Your task to perform on an android device: turn off location Image 0: 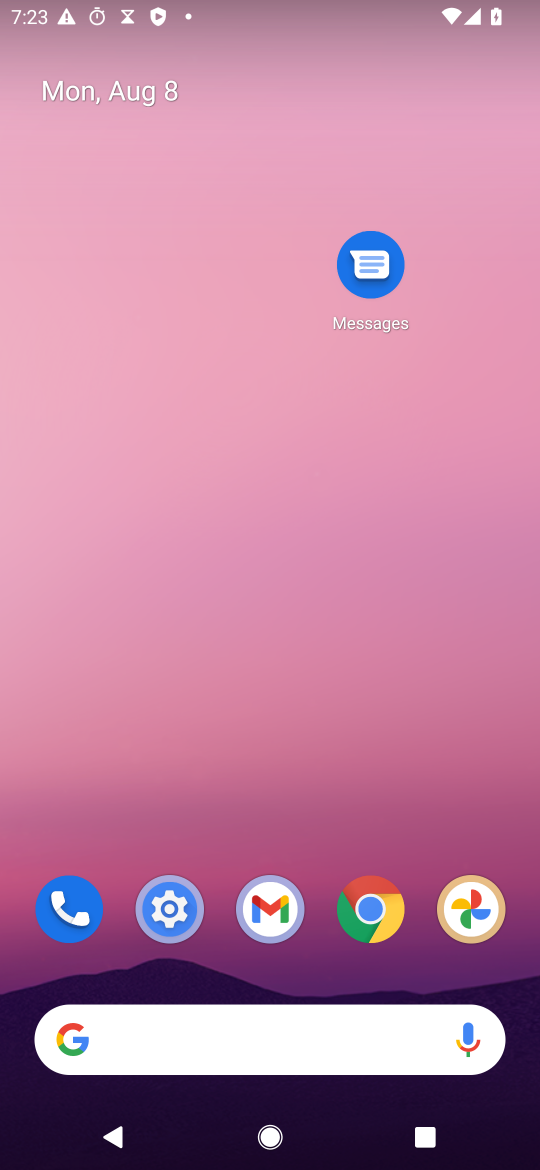
Step 0: press home button
Your task to perform on an android device: turn off location Image 1: 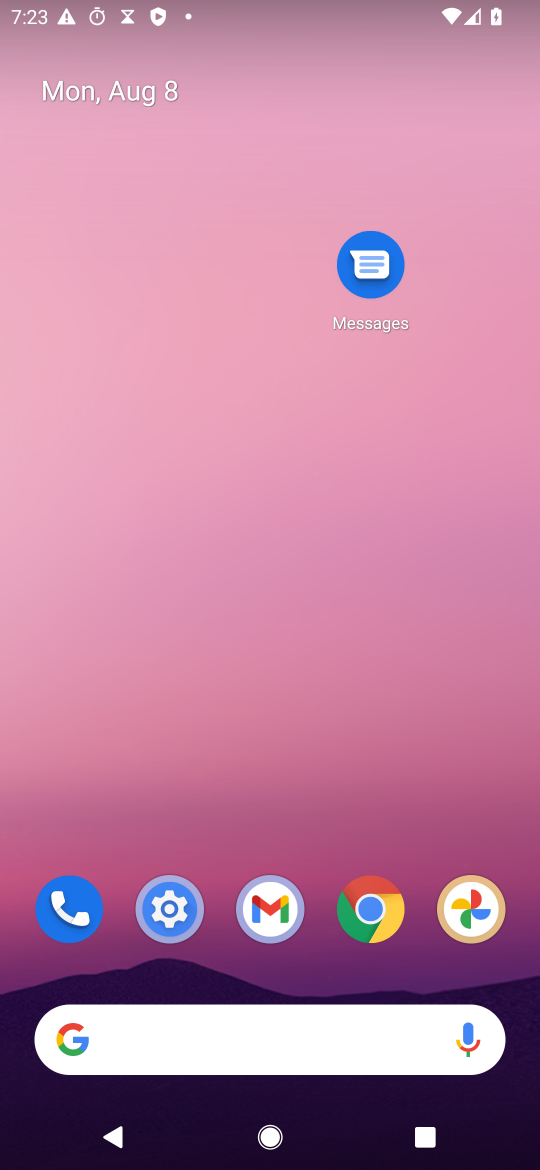
Step 1: click (176, 910)
Your task to perform on an android device: turn off location Image 2: 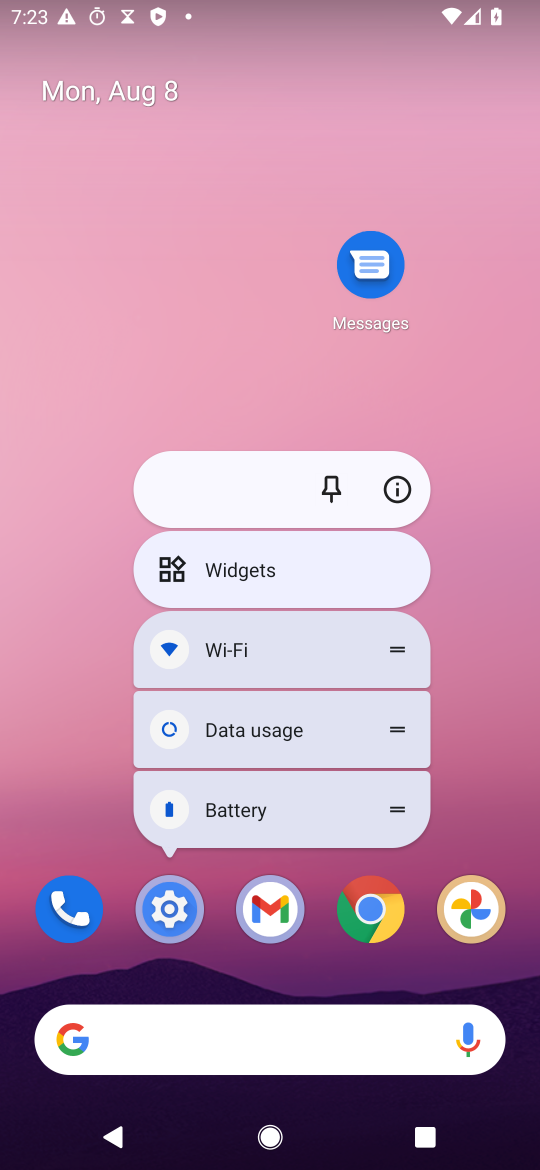
Step 2: click (176, 912)
Your task to perform on an android device: turn off location Image 3: 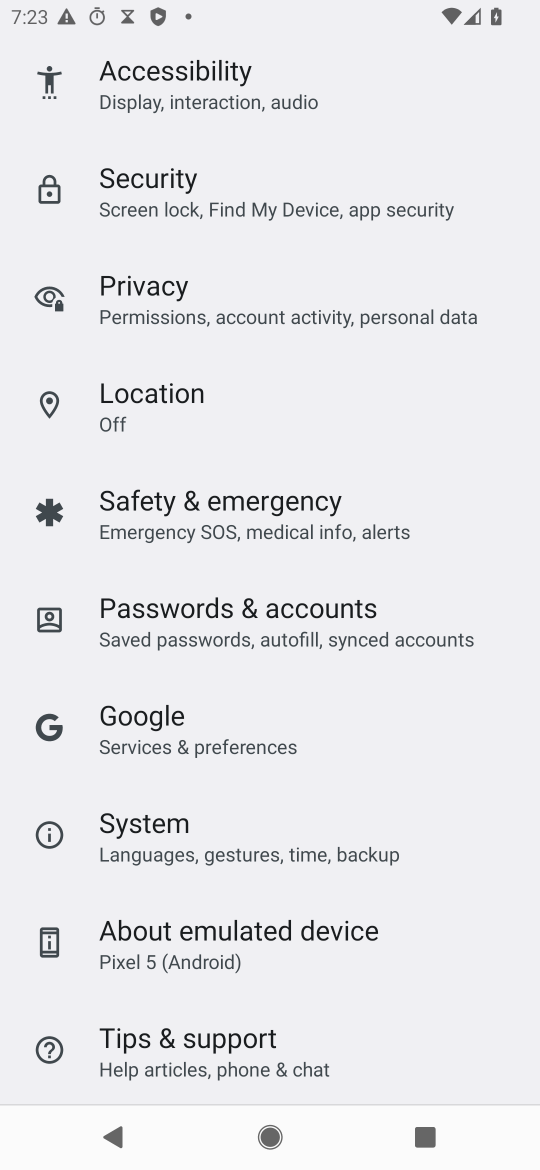
Step 3: click (153, 398)
Your task to perform on an android device: turn off location Image 4: 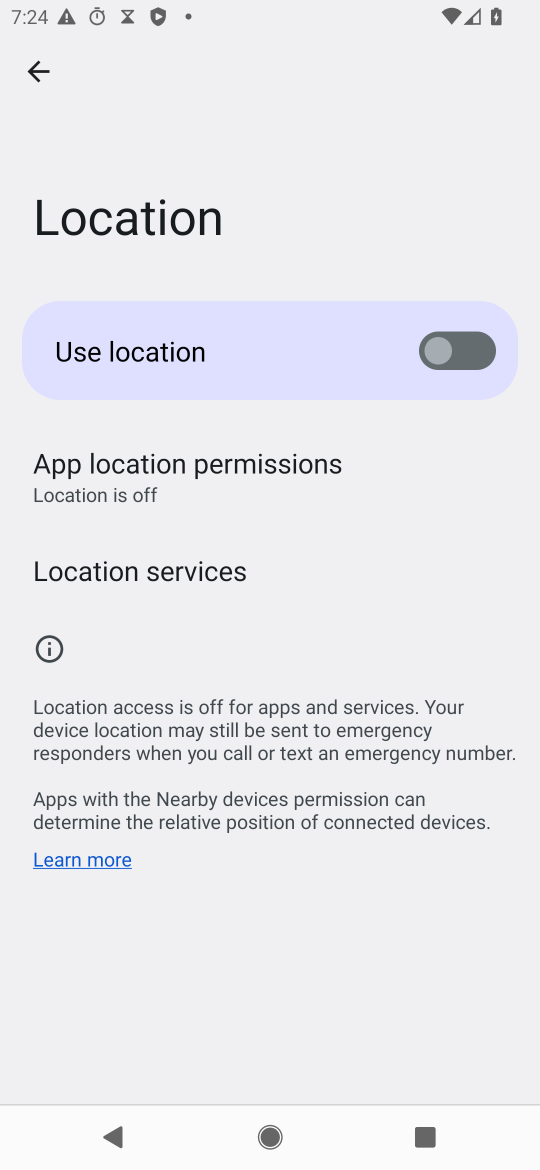
Step 4: task complete